Your task to perform on an android device: see tabs open on other devices in the chrome app Image 0: 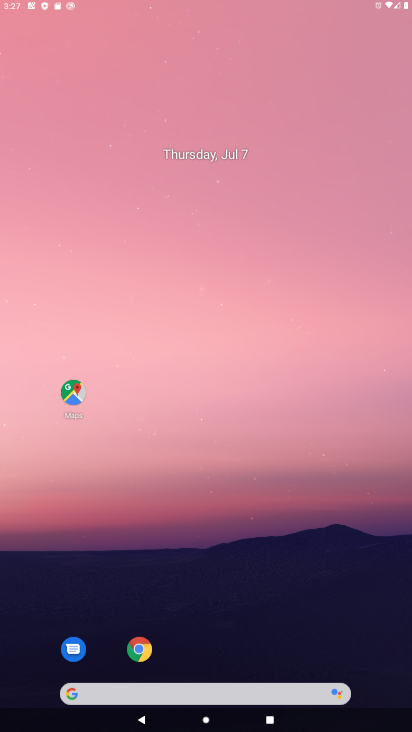
Step 0: click (260, 148)
Your task to perform on an android device: see tabs open on other devices in the chrome app Image 1: 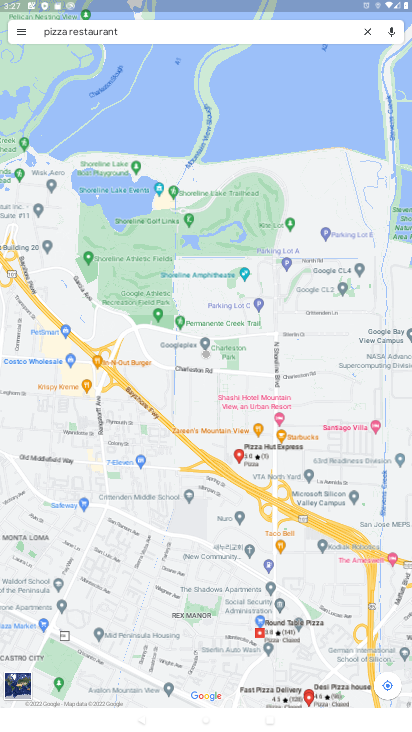
Step 1: press home button
Your task to perform on an android device: see tabs open on other devices in the chrome app Image 2: 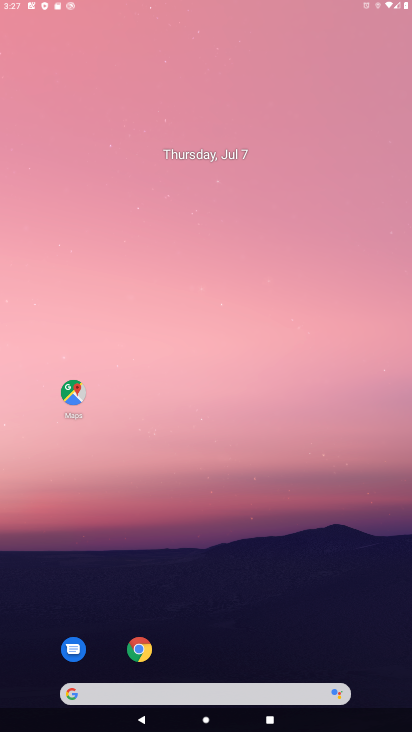
Step 2: drag from (203, 629) to (375, 26)
Your task to perform on an android device: see tabs open on other devices in the chrome app Image 3: 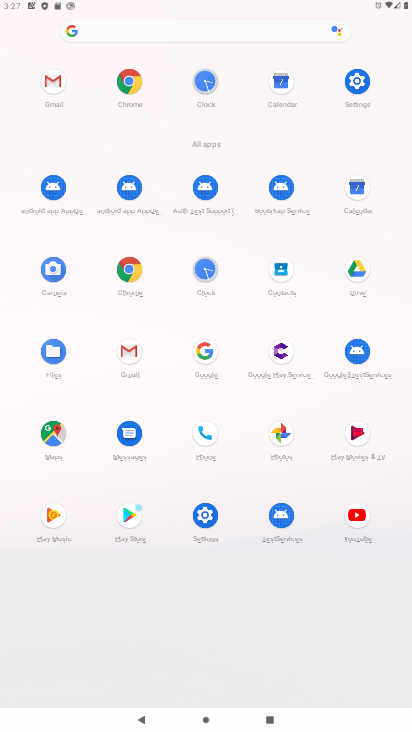
Step 3: click (122, 262)
Your task to perform on an android device: see tabs open on other devices in the chrome app Image 4: 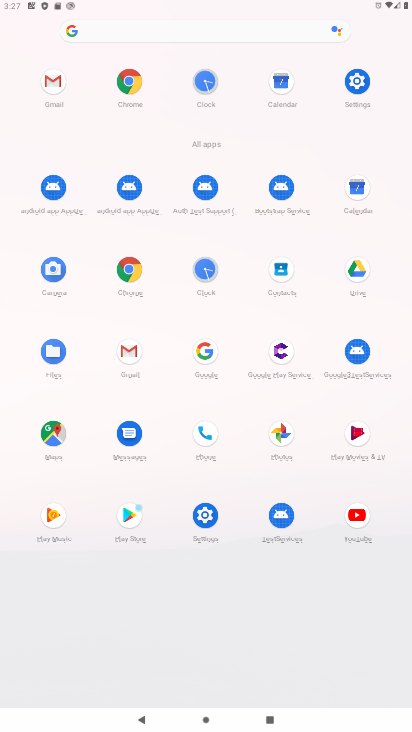
Step 4: click (122, 262)
Your task to perform on an android device: see tabs open on other devices in the chrome app Image 5: 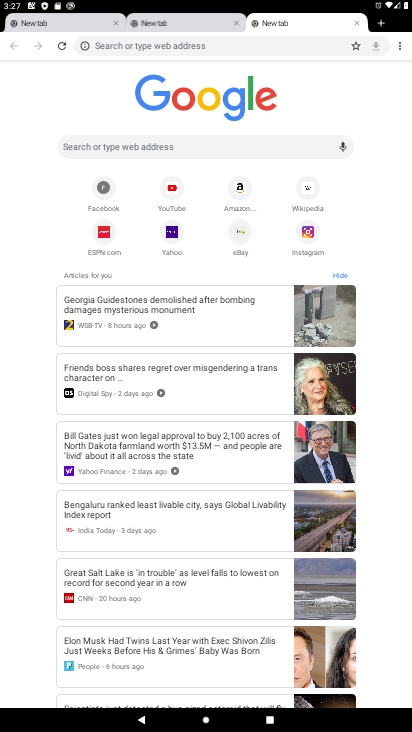
Step 5: task complete